Your task to perform on an android device: see tabs open on other devices in the chrome app Image 0: 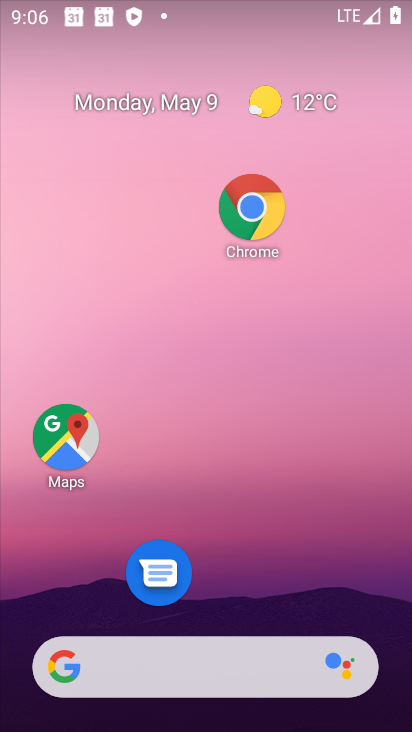
Step 0: drag from (228, 658) to (190, 309)
Your task to perform on an android device: see tabs open on other devices in the chrome app Image 1: 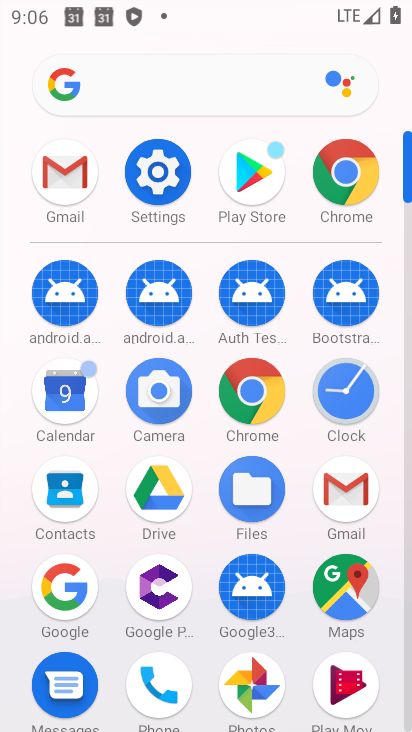
Step 1: click (248, 372)
Your task to perform on an android device: see tabs open on other devices in the chrome app Image 2: 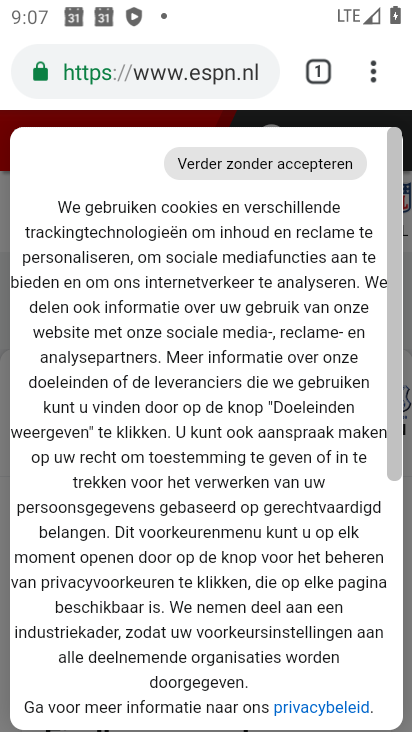
Step 2: task complete